Your task to perform on an android device: Open the calendar app, open the side menu, and click the "Day" option Image 0: 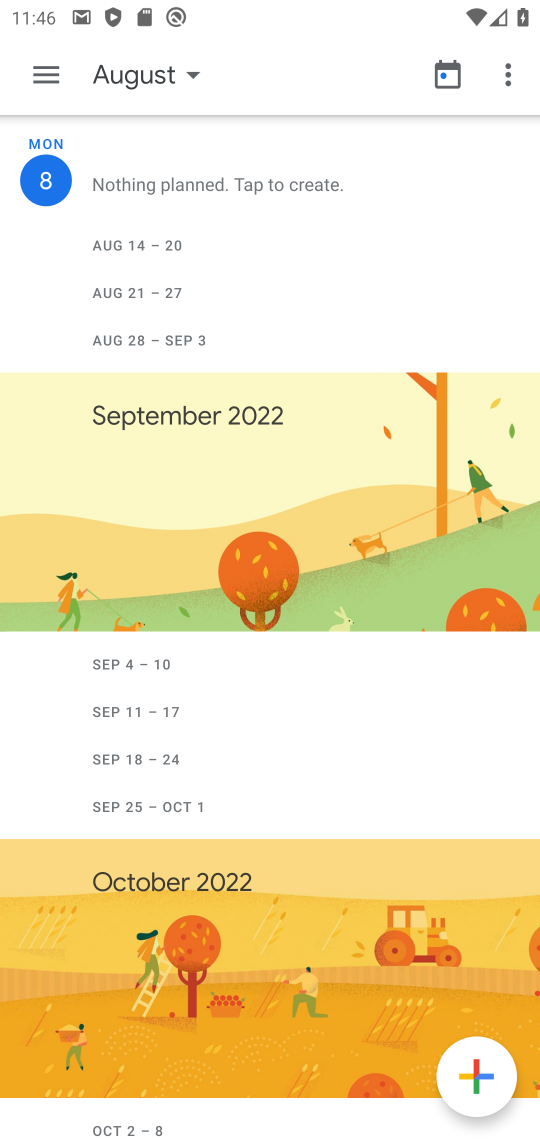
Step 0: click (44, 75)
Your task to perform on an android device: Open the calendar app, open the side menu, and click the "Day" option Image 1: 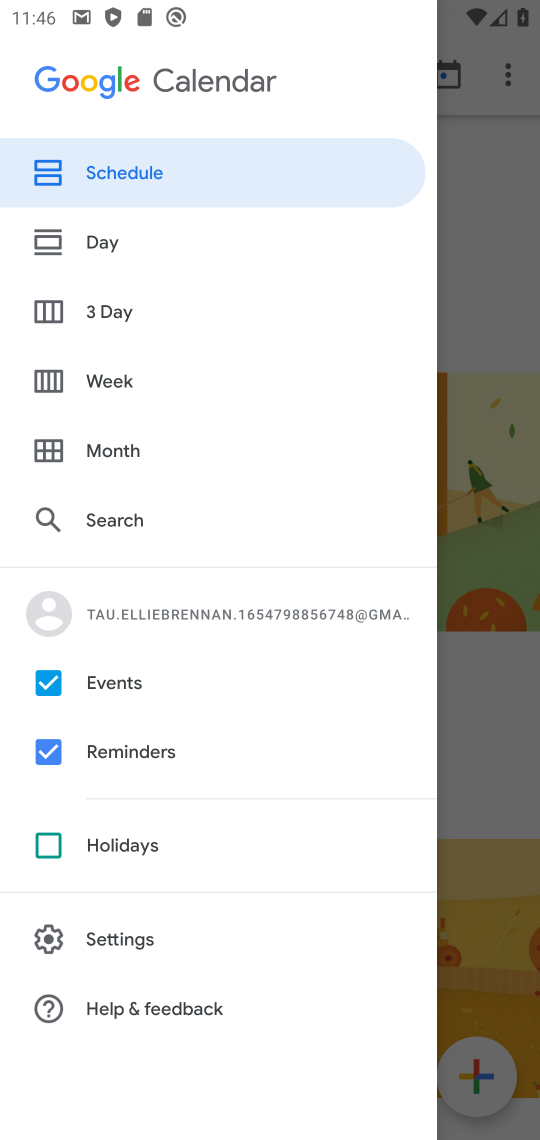
Step 1: click (103, 246)
Your task to perform on an android device: Open the calendar app, open the side menu, and click the "Day" option Image 2: 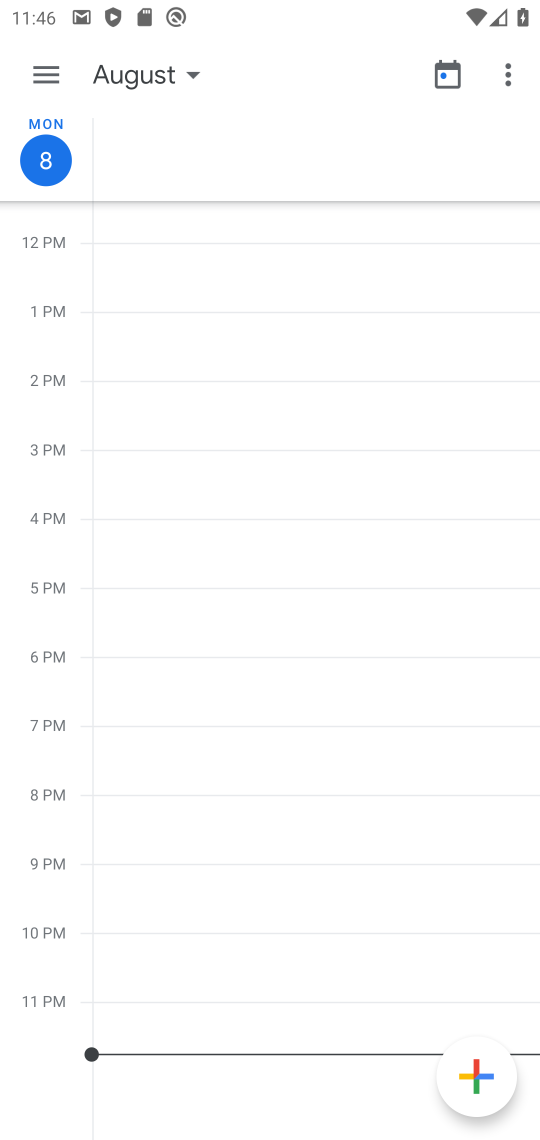
Step 2: task complete